Your task to perform on an android device: toggle airplane mode Image 0: 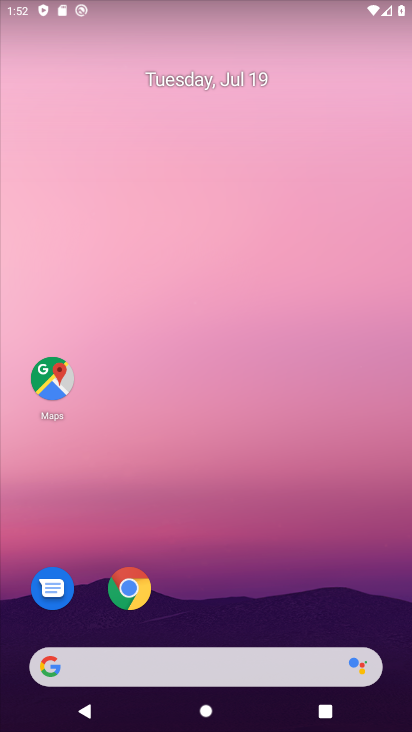
Step 0: press home button
Your task to perform on an android device: toggle airplane mode Image 1: 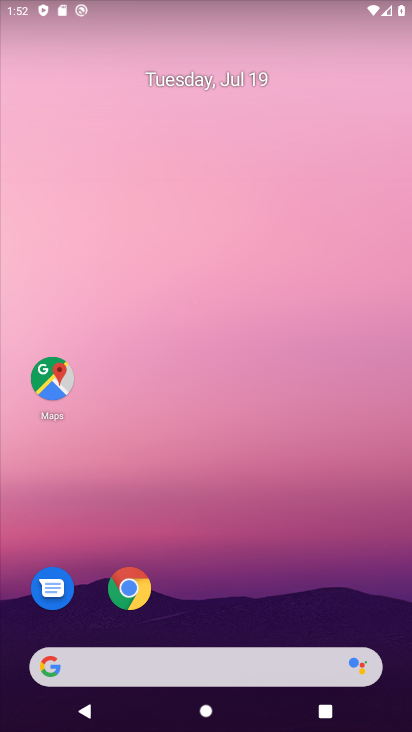
Step 1: drag from (211, 0) to (334, 499)
Your task to perform on an android device: toggle airplane mode Image 2: 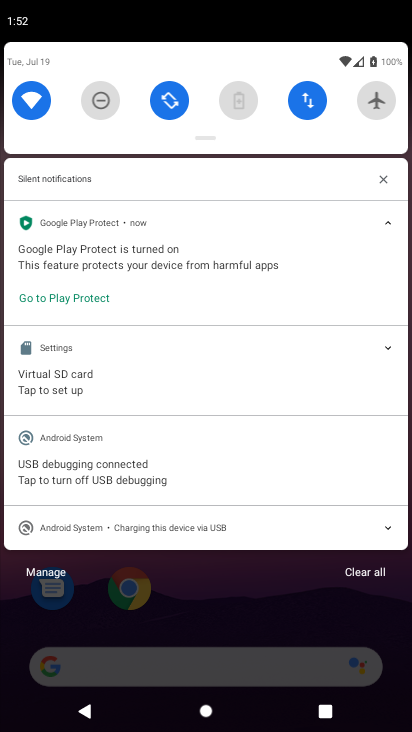
Step 2: click (378, 102)
Your task to perform on an android device: toggle airplane mode Image 3: 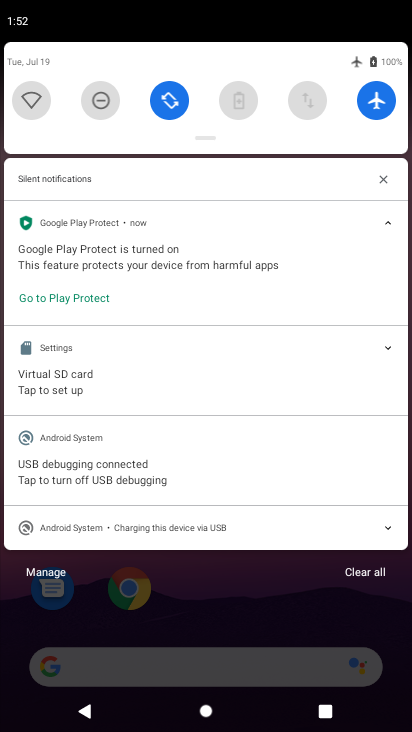
Step 3: task complete